Your task to perform on an android device: Go to location settings Image 0: 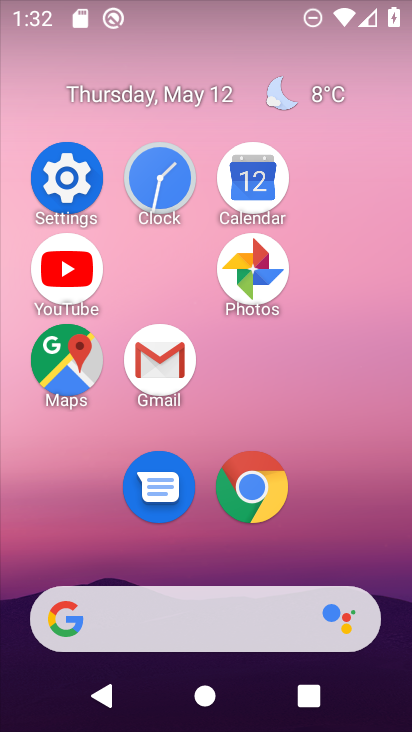
Step 0: click (83, 185)
Your task to perform on an android device: Go to location settings Image 1: 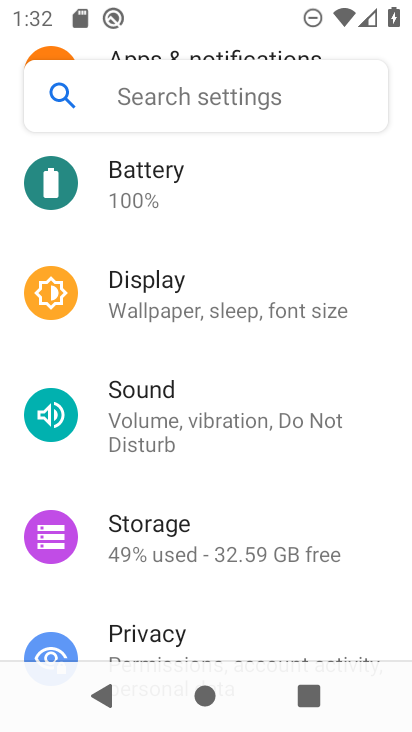
Step 1: drag from (202, 565) to (257, 216)
Your task to perform on an android device: Go to location settings Image 2: 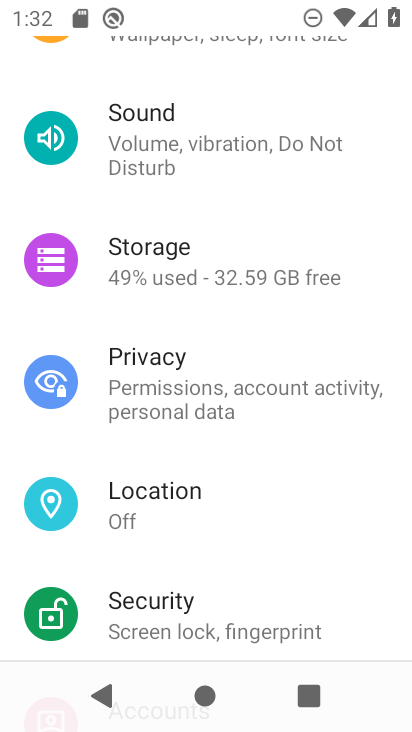
Step 2: click (276, 494)
Your task to perform on an android device: Go to location settings Image 3: 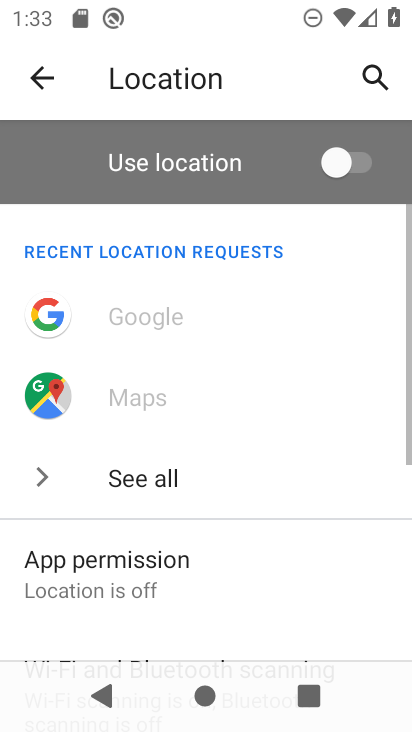
Step 3: task complete